Your task to perform on an android device: Do I have any events tomorrow? Image 0: 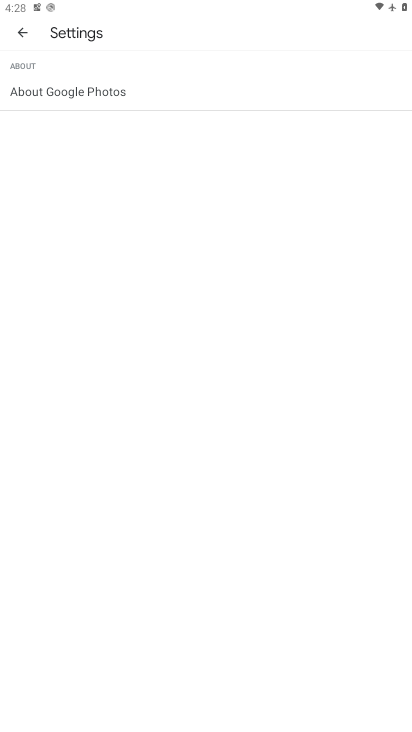
Step 0: press home button
Your task to perform on an android device: Do I have any events tomorrow? Image 1: 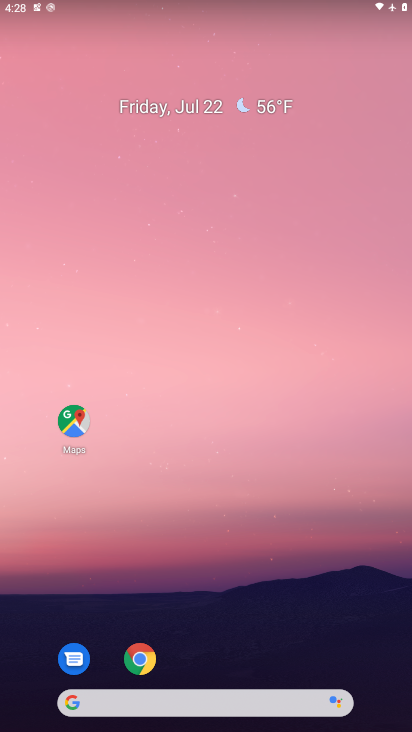
Step 1: drag from (200, 661) to (224, 166)
Your task to perform on an android device: Do I have any events tomorrow? Image 2: 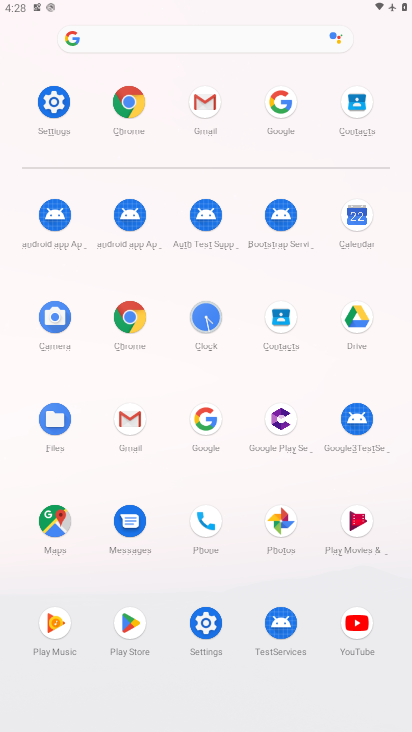
Step 2: click (359, 217)
Your task to perform on an android device: Do I have any events tomorrow? Image 3: 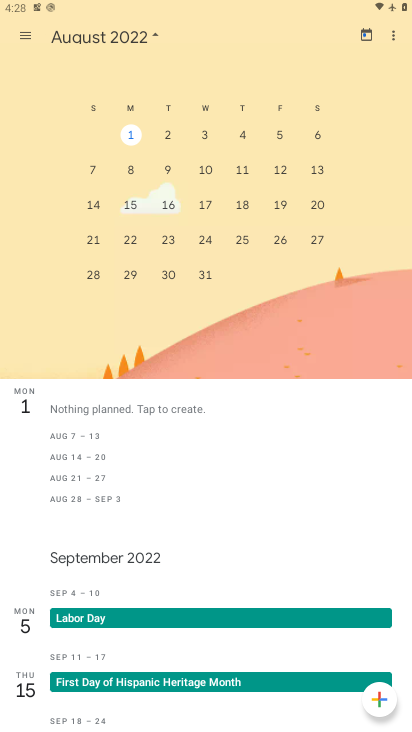
Step 3: drag from (33, 171) to (330, 212)
Your task to perform on an android device: Do I have any events tomorrow? Image 4: 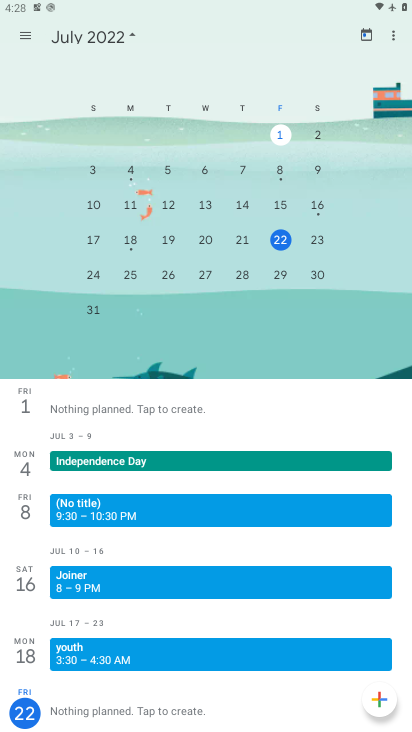
Step 4: click (314, 242)
Your task to perform on an android device: Do I have any events tomorrow? Image 5: 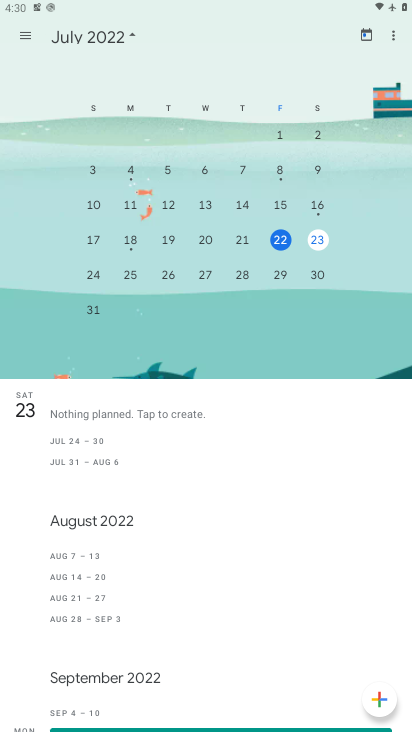
Step 5: task complete